Your task to perform on an android device: open app "Google Home" Image 0: 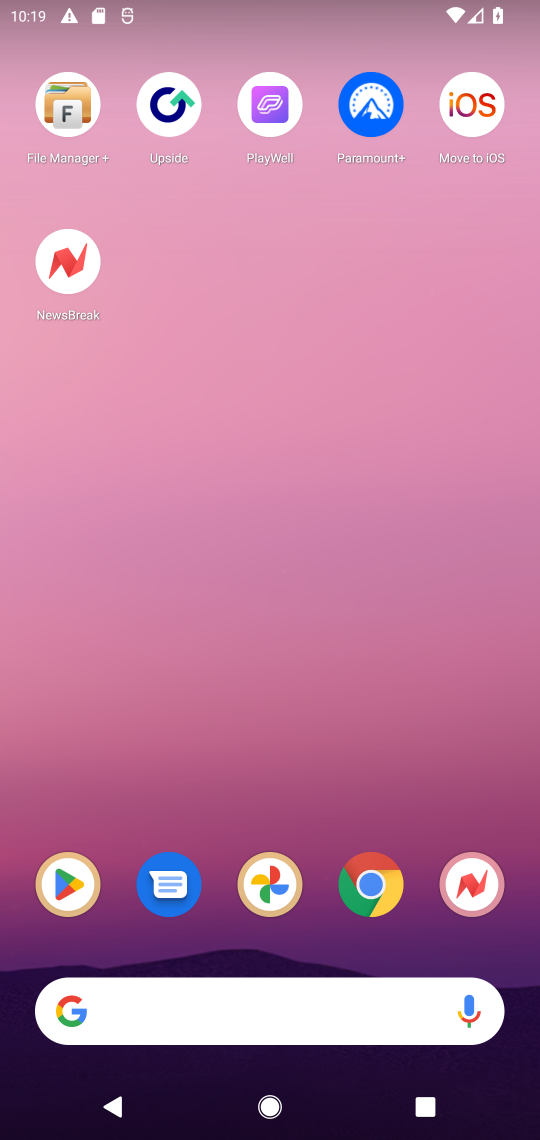
Step 0: press home button
Your task to perform on an android device: open app "Google Home" Image 1: 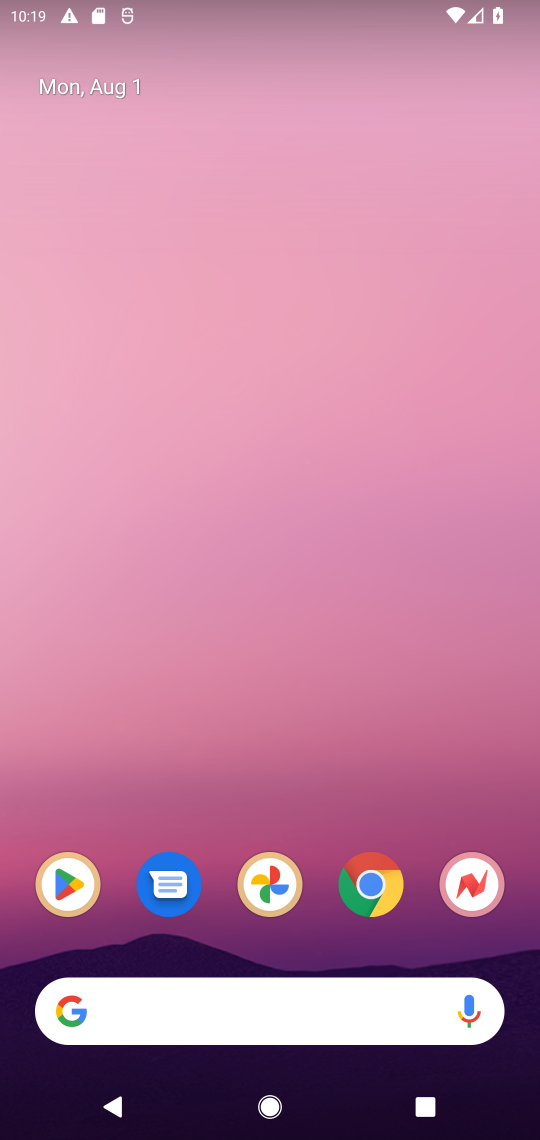
Step 1: click (59, 905)
Your task to perform on an android device: open app "Google Home" Image 2: 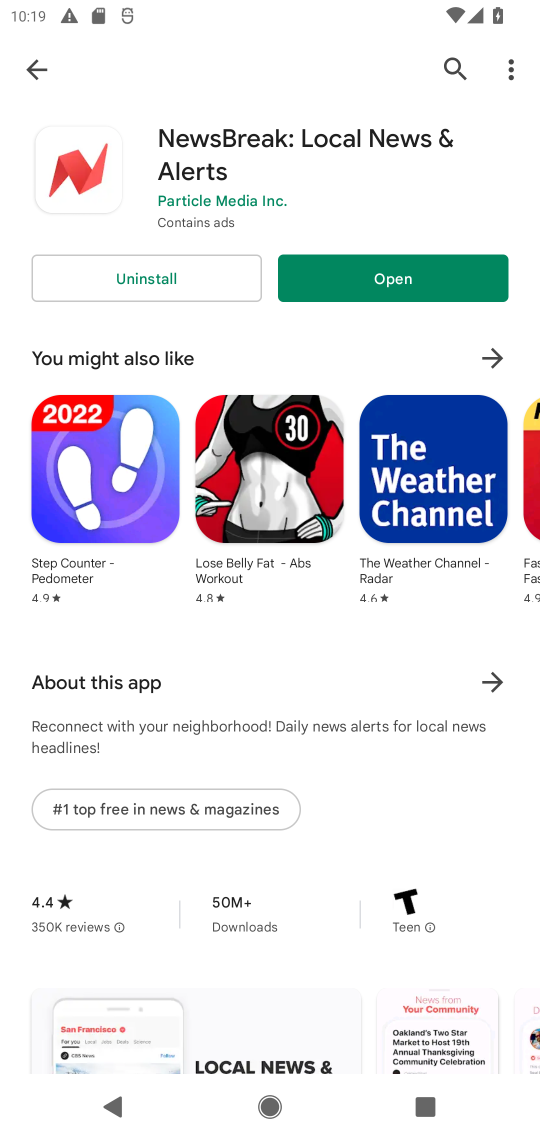
Step 2: click (434, 66)
Your task to perform on an android device: open app "Google Home" Image 3: 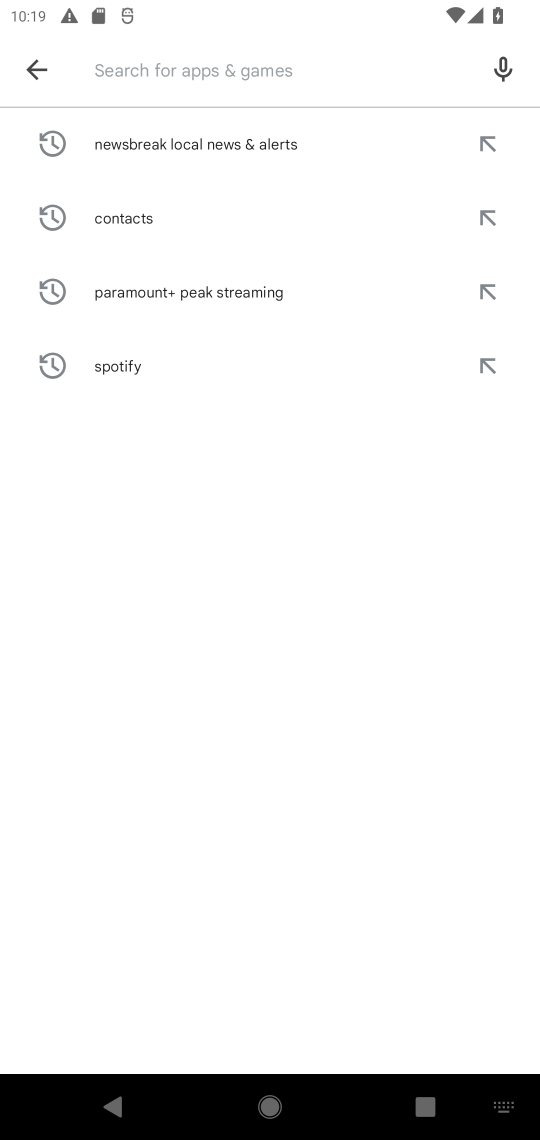
Step 3: type "google home"
Your task to perform on an android device: open app "Google Home" Image 4: 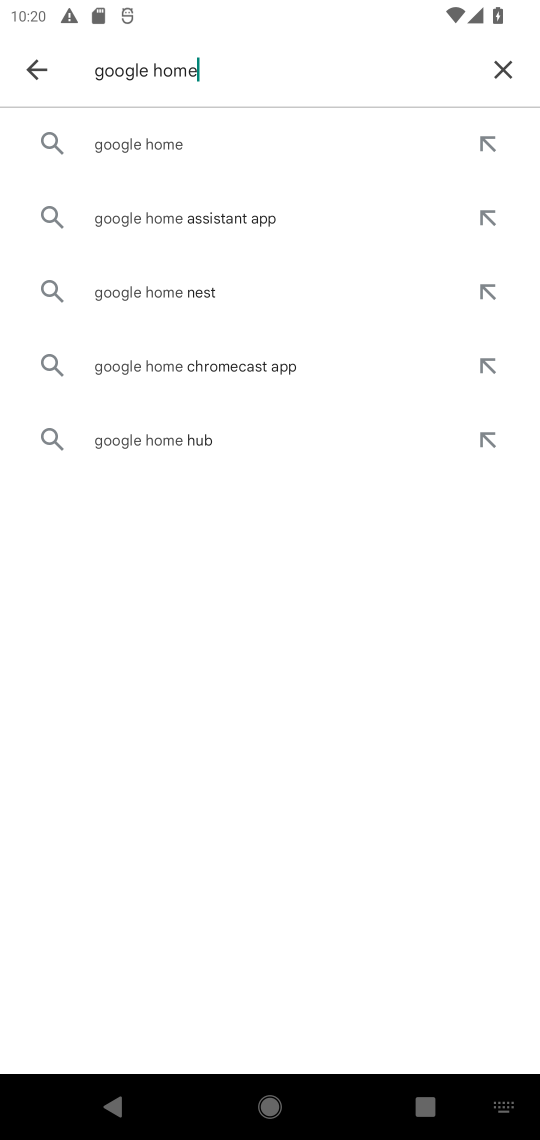
Step 4: click (90, 127)
Your task to perform on an android device: open app "Google Home" Image 5: 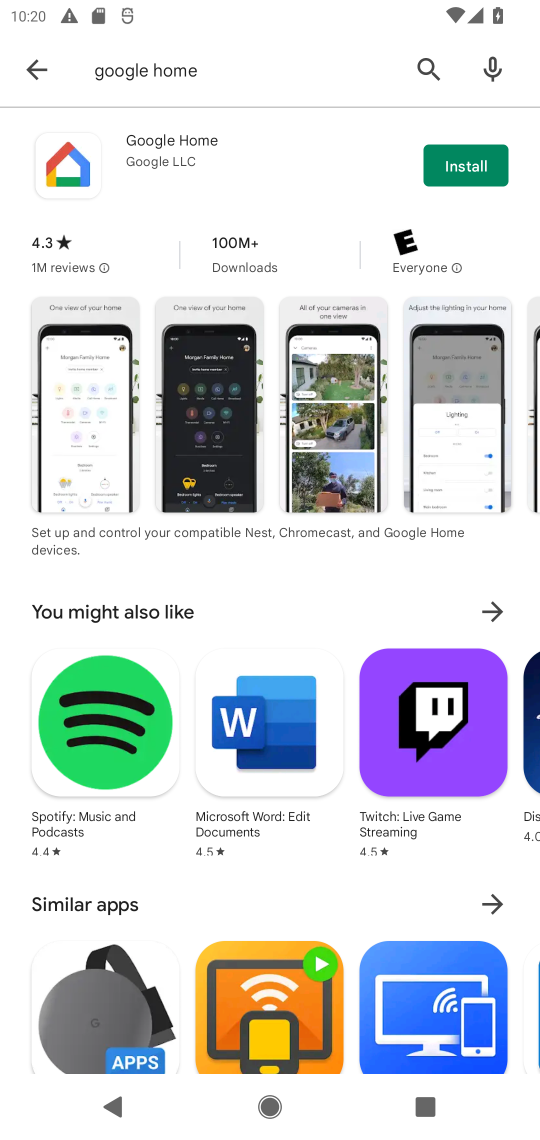
Step 5: click (259, 144)
Your task to perform on an android device: open app "Google Home" Image 6: 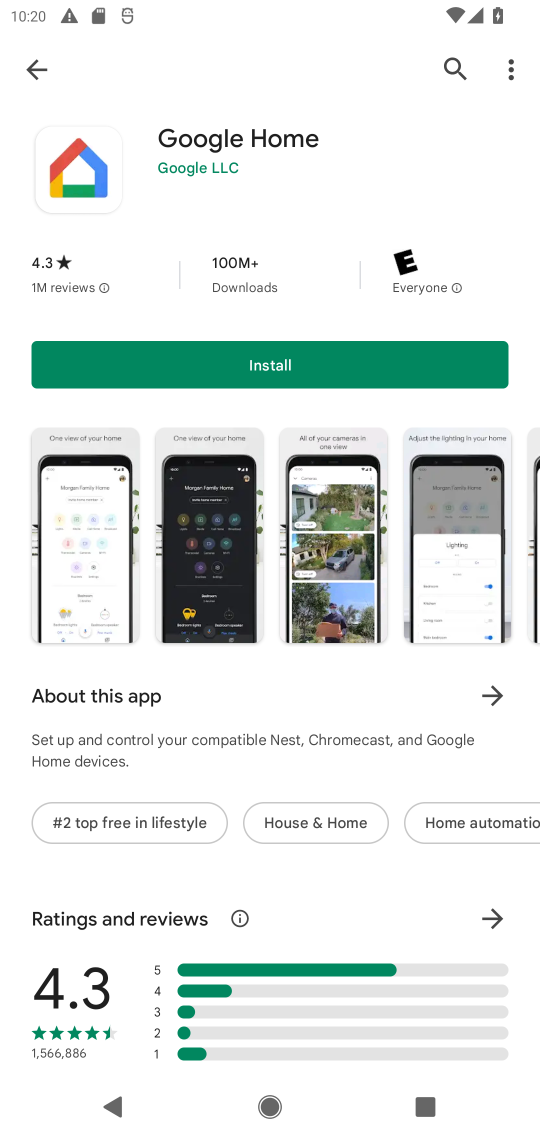
Step 6: task complete